Your task to perform on an android device: turn off picture-in-picture Image 0: 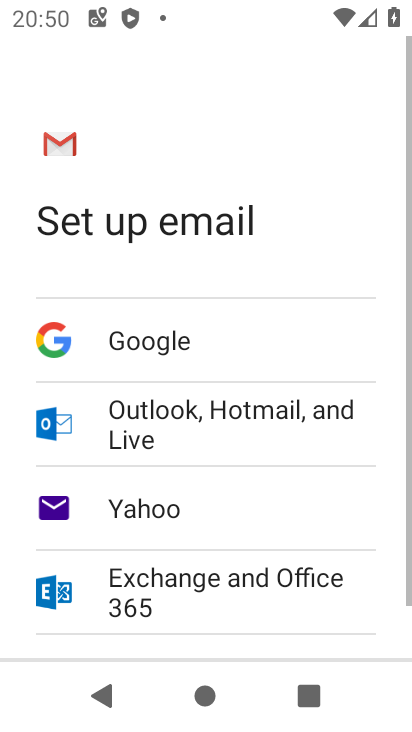
Step 0: press home button
Your task to perform on an android device: turn off picture-in-picture Image 1: 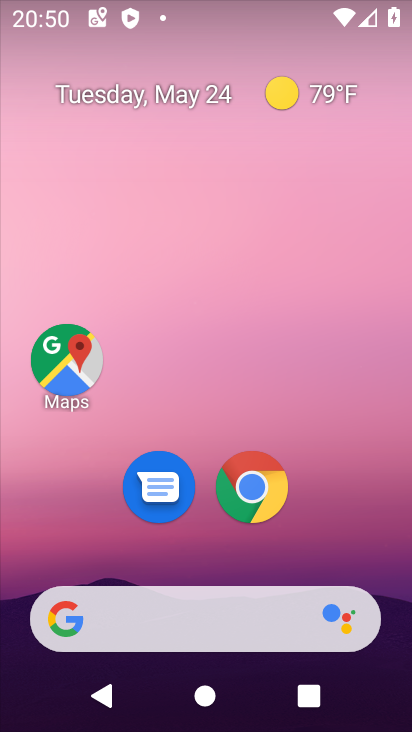
Step 1: click (266, 496)
Your task to perform on an android device: turn off picture-in-picture Image 2: 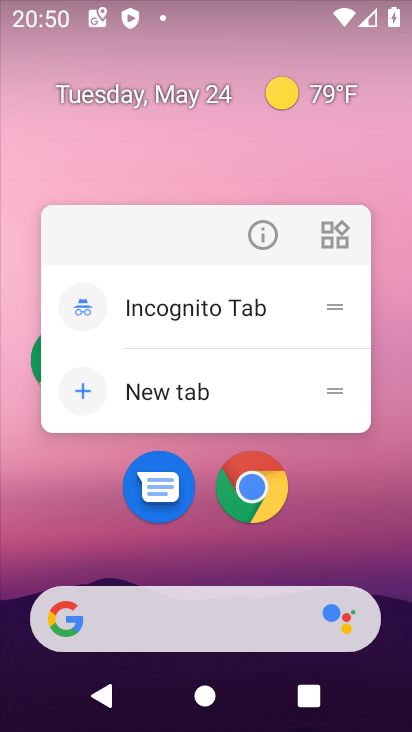
Step 2: click (285, 244)
Your task to perform on an android device: turn off picture-in-picture Image 3: 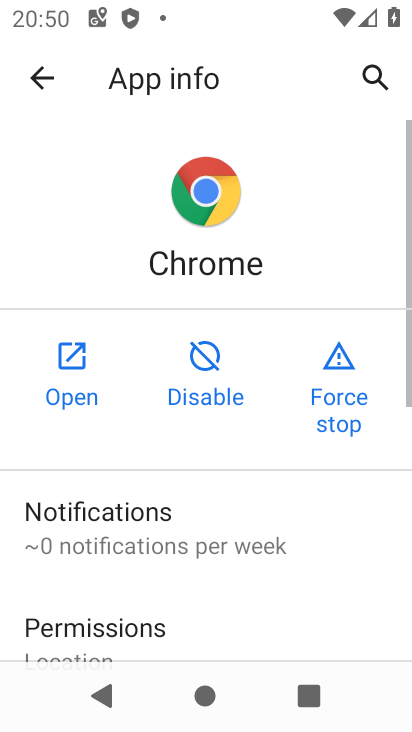
Step 3: drag from (218, 563) to (241, 9)
Your task to perform on an android device: turn off picture-in-picture Image 4: 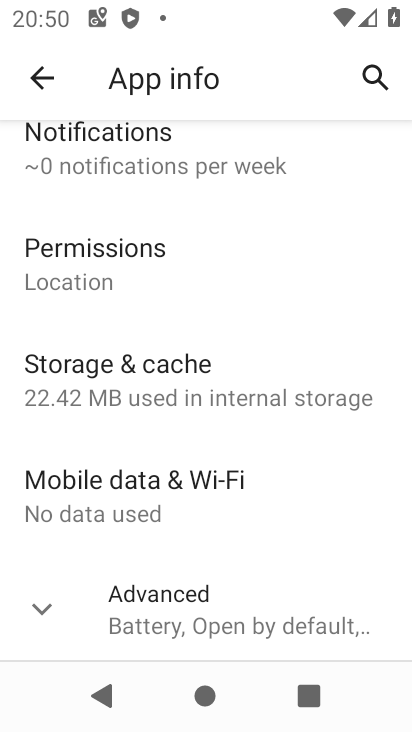
Step 4: click (206, 601)
Your task to perform on an android device: turn off picture-in-picture Image 5: 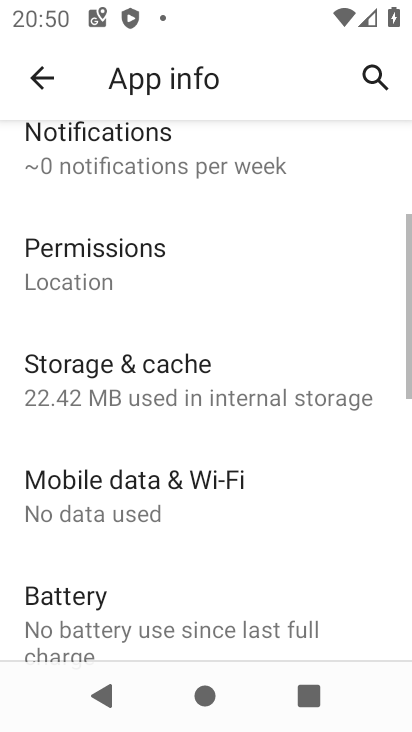
Step 5: drag from (274, 615) to (287, 113)
Your task to perform on an android device: turn off picture-in-picture Image 6: 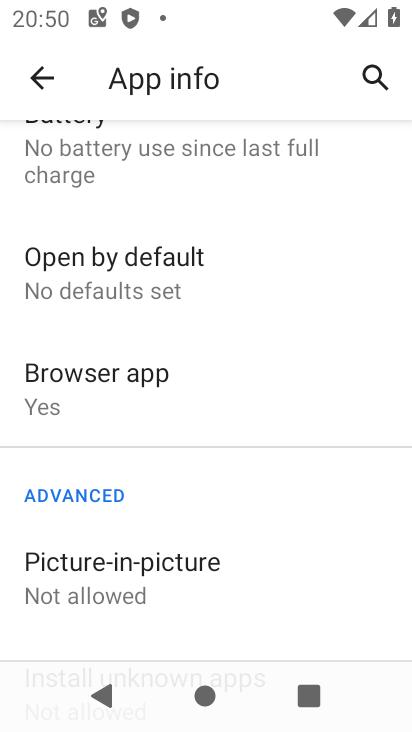
Step 6: click (231, 594)
Your task to perform on an android device: turn off picture-in-picture Image 7: 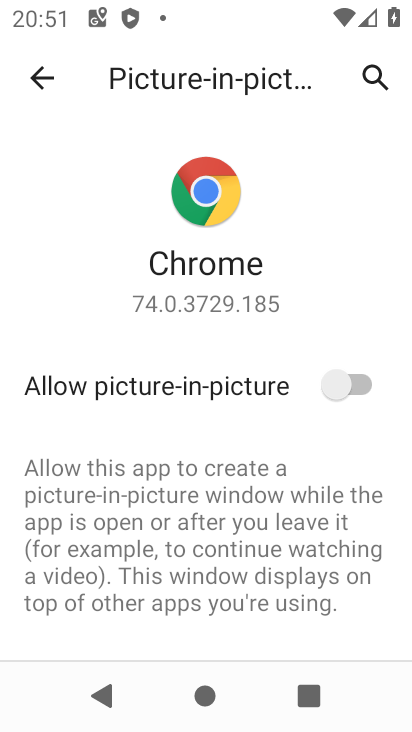
Step 7: click (296, 394)
Your task to perform on an android device: turn off picture-in-picture Image 8: 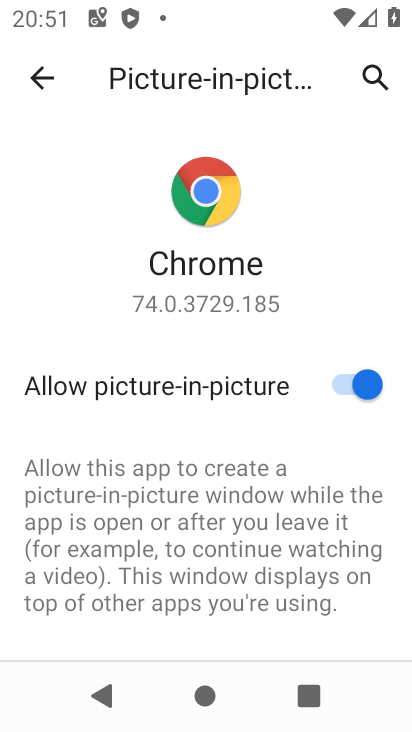
Step 8: click (296, 394)
Your task to perform on an android device: turn off picture-in-picture Image 9: 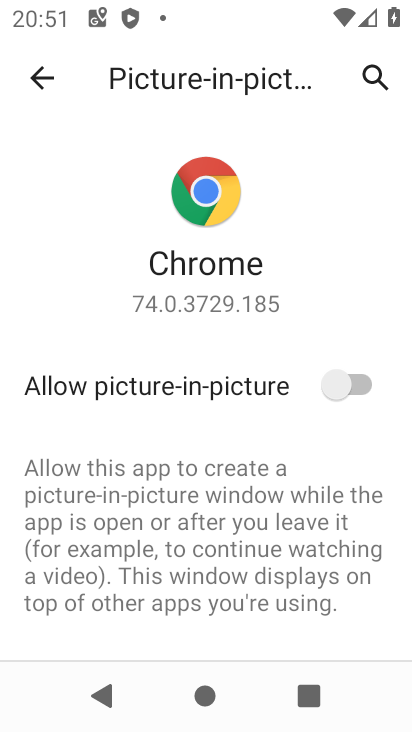
Step 9: task complete